Your task to perform on an android device: change alarm snooze length Image 0: 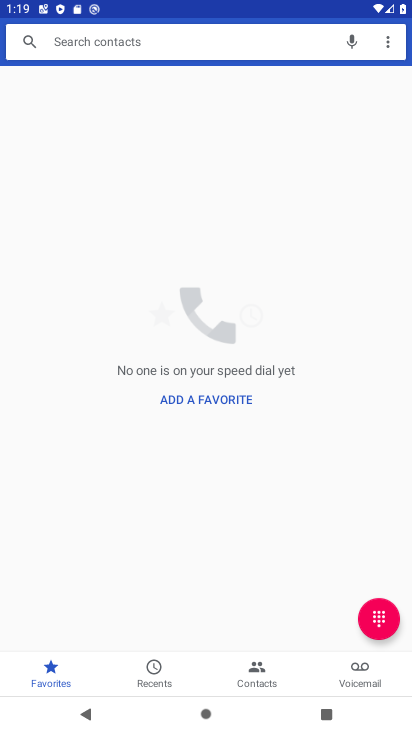
Step 0: press home button
Your task to perform on an android device: change alarm snooze length Image 1: 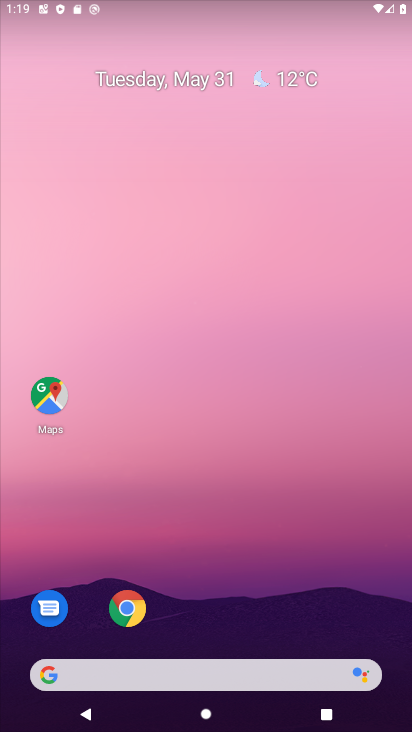
Step 1: drag from (345, 559) to (334, 235)
Your task to perform on an android device: change alarm snooze length Image 2: 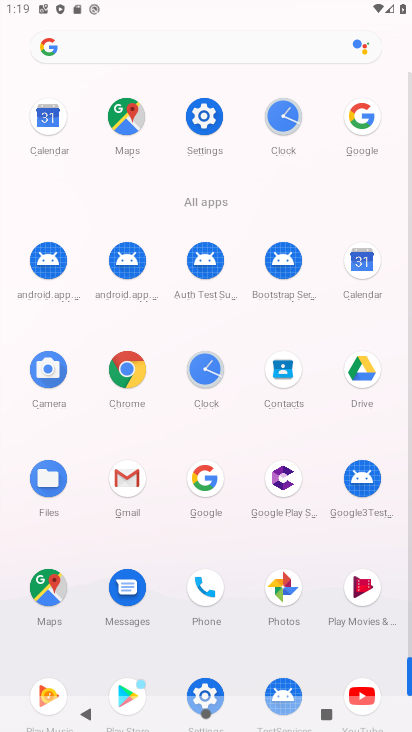
Step 2: click (202, 386)
Your task to perform on an android device: change alarm snooze length Image 3: 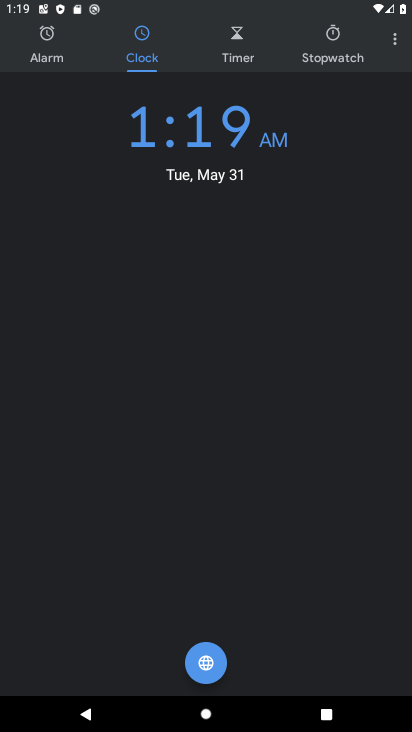
Step 3: click (392, 37)
Your task to perform on an android device: change alarm snooze length Image 4: 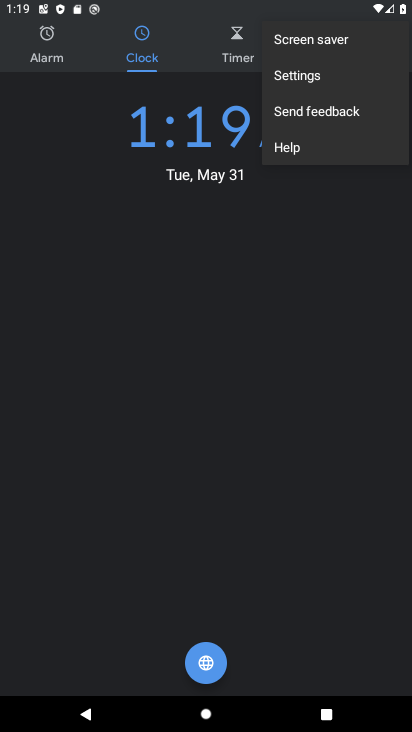
Step 4: click (304, 71)
Your task to perform on an android device: change alarm snooze length Image 5: 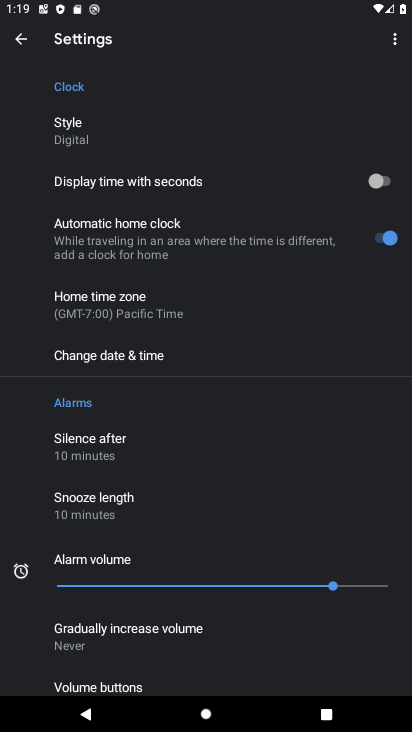
Step 5: click (149, 502)
Your task to perform on an android device: change alarm snooze length Image 6: 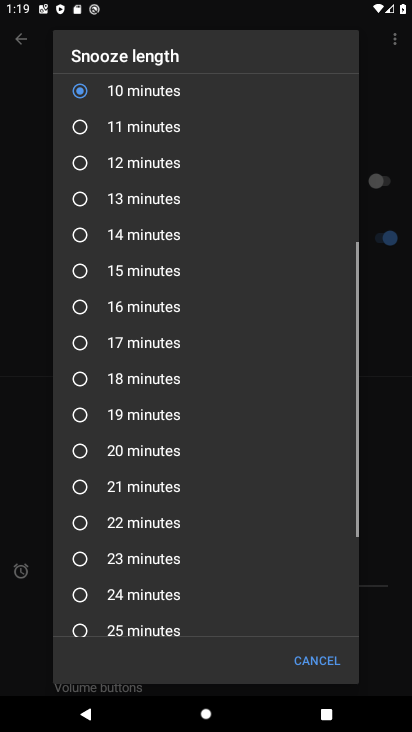
Step 6: click (150, 537)
Your task to perform on an android device: change alarm snooze length Image 7: 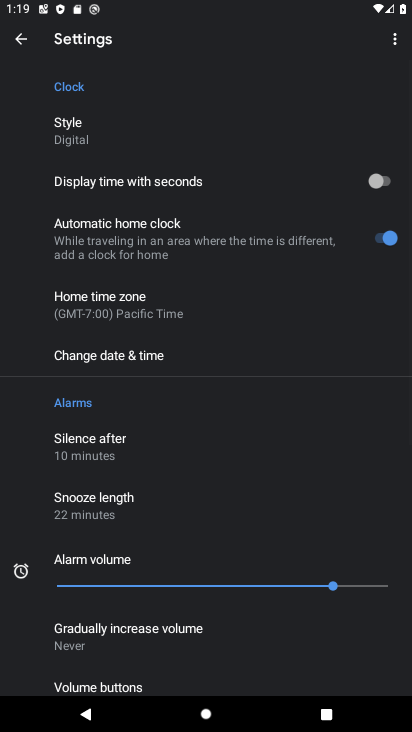
Step 7: task complete